Your task to perform on an android device: Open Wikipedia Image 0: 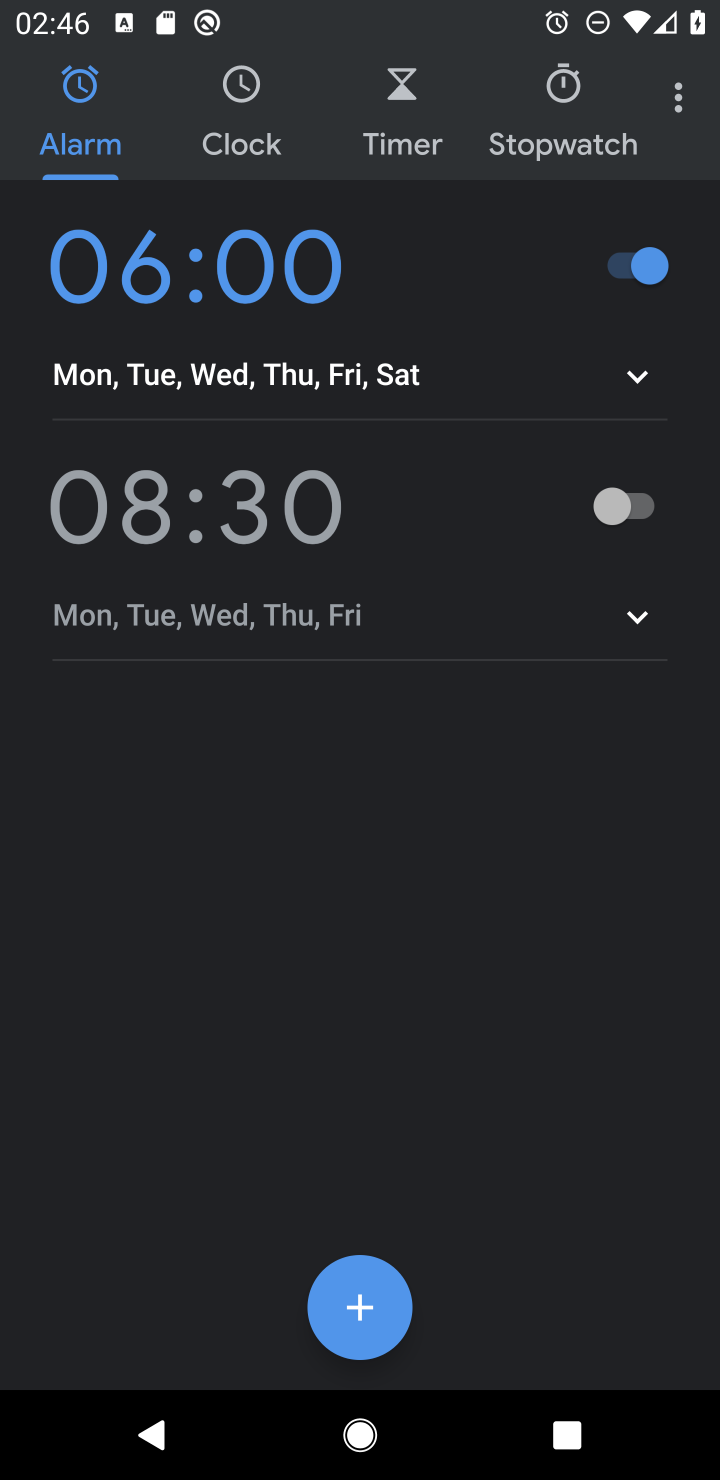
Step 0: press home button
Your task to perform on an android device: Open Wikipedia Image 1: 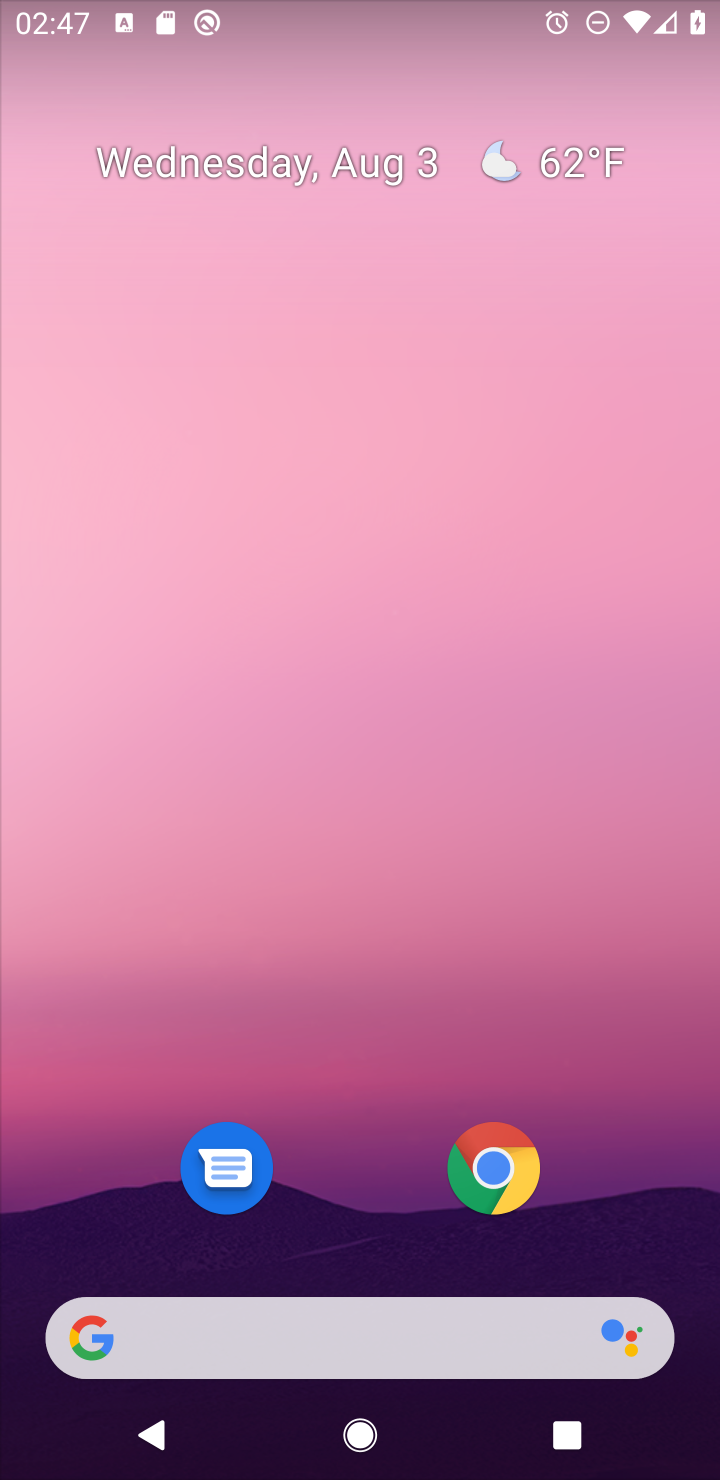
Step 1: click (491, 1168)
Your task to perform on an android device: Open Wikipedia Image 2: 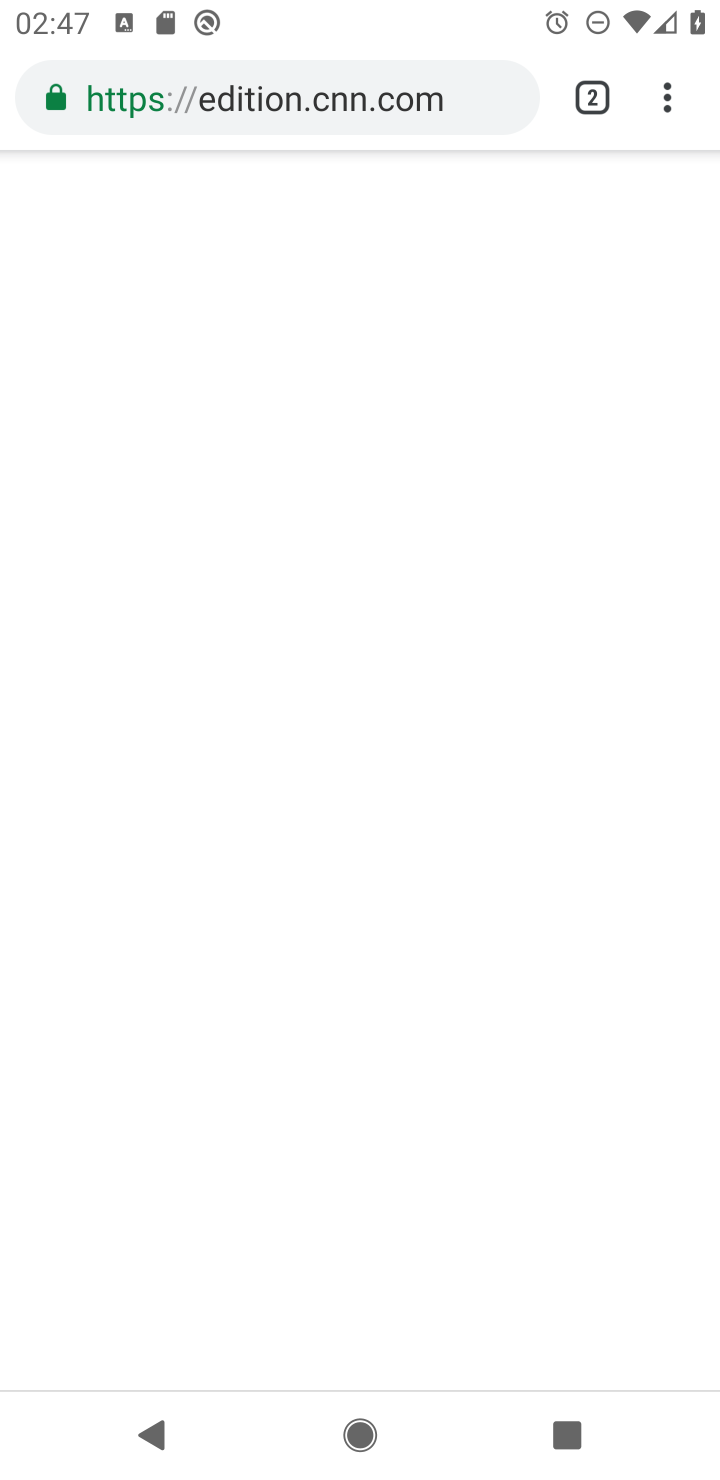
Step 2: click (475, 89)
Your task to perform on an android device: Open Wikipedia Image 3: 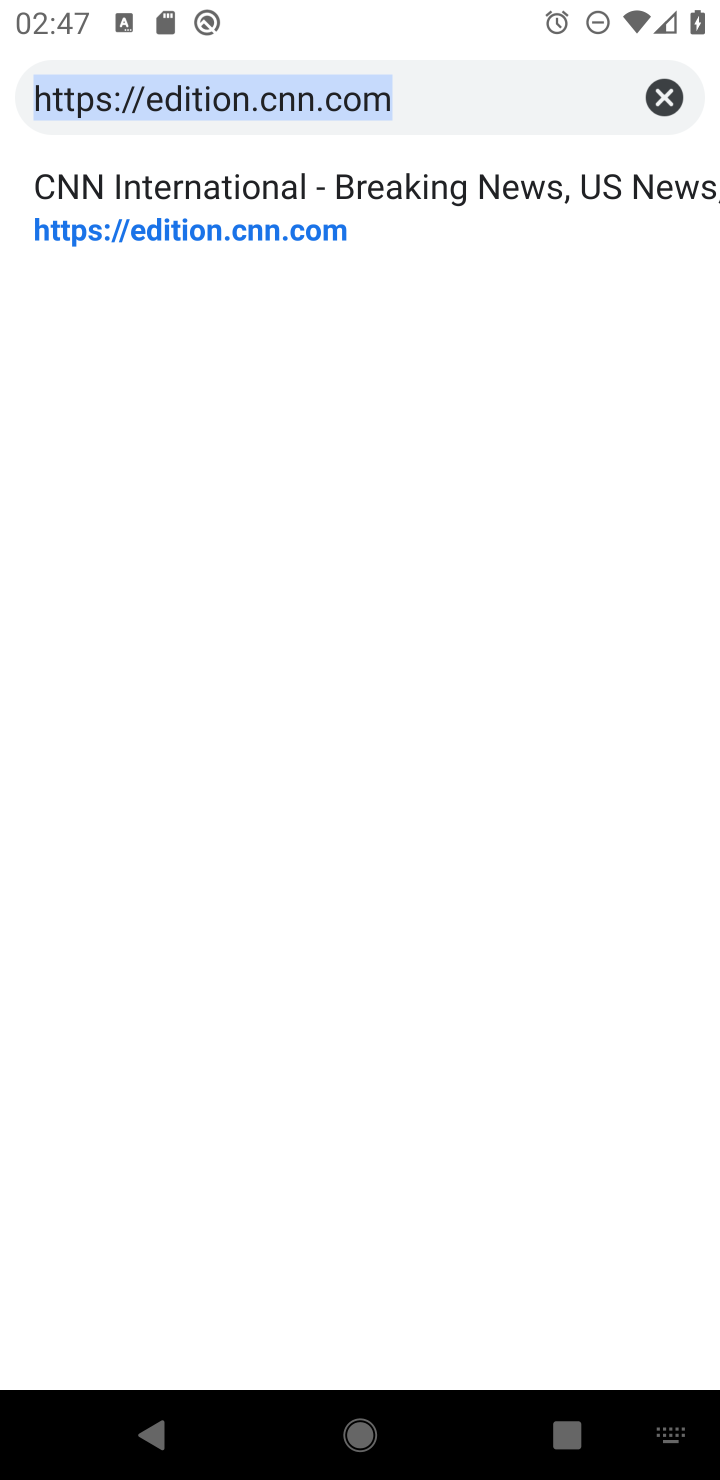
Step 3: click (656, 101)
Your task to perform on an android device: Open Wikipedia Image 4: 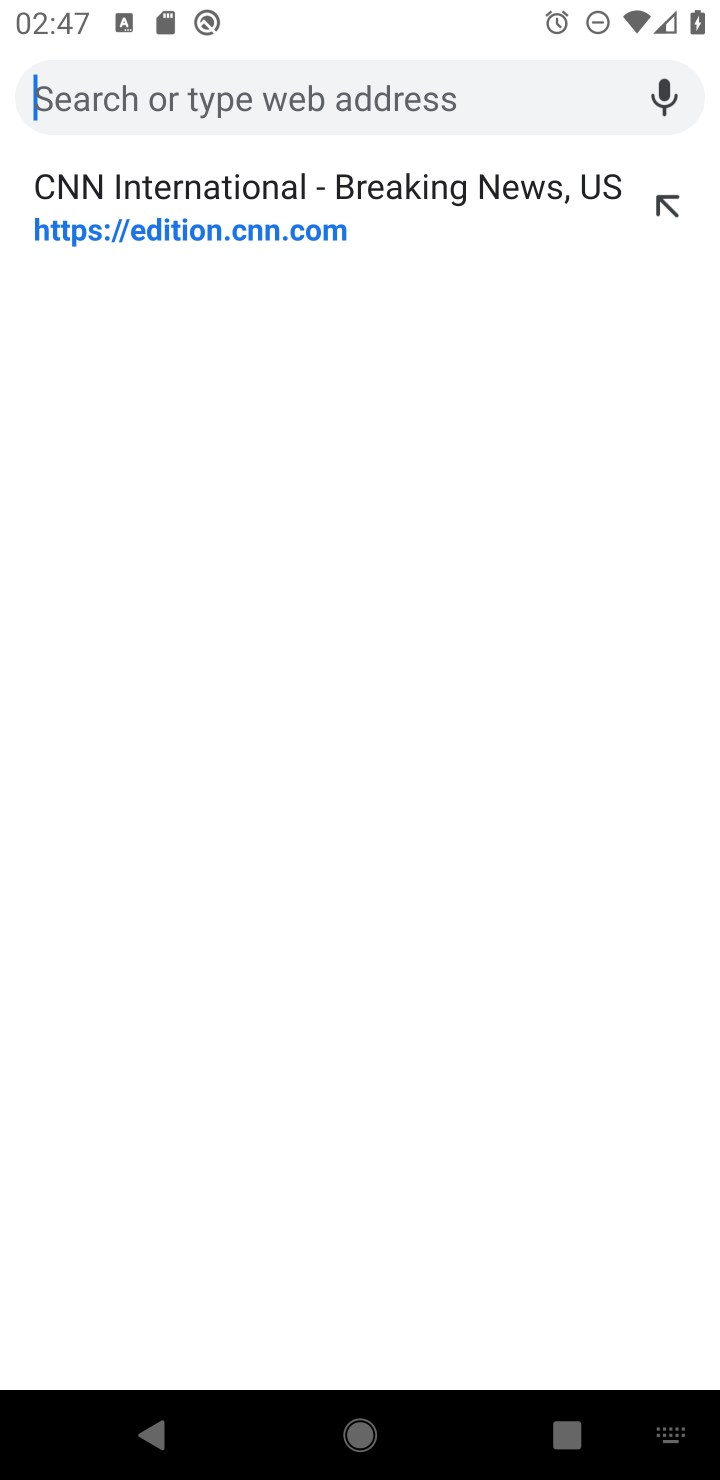
Step 4: type "wikipedia"
Your task to perform on an android device: Open Wikipedia Image 5: 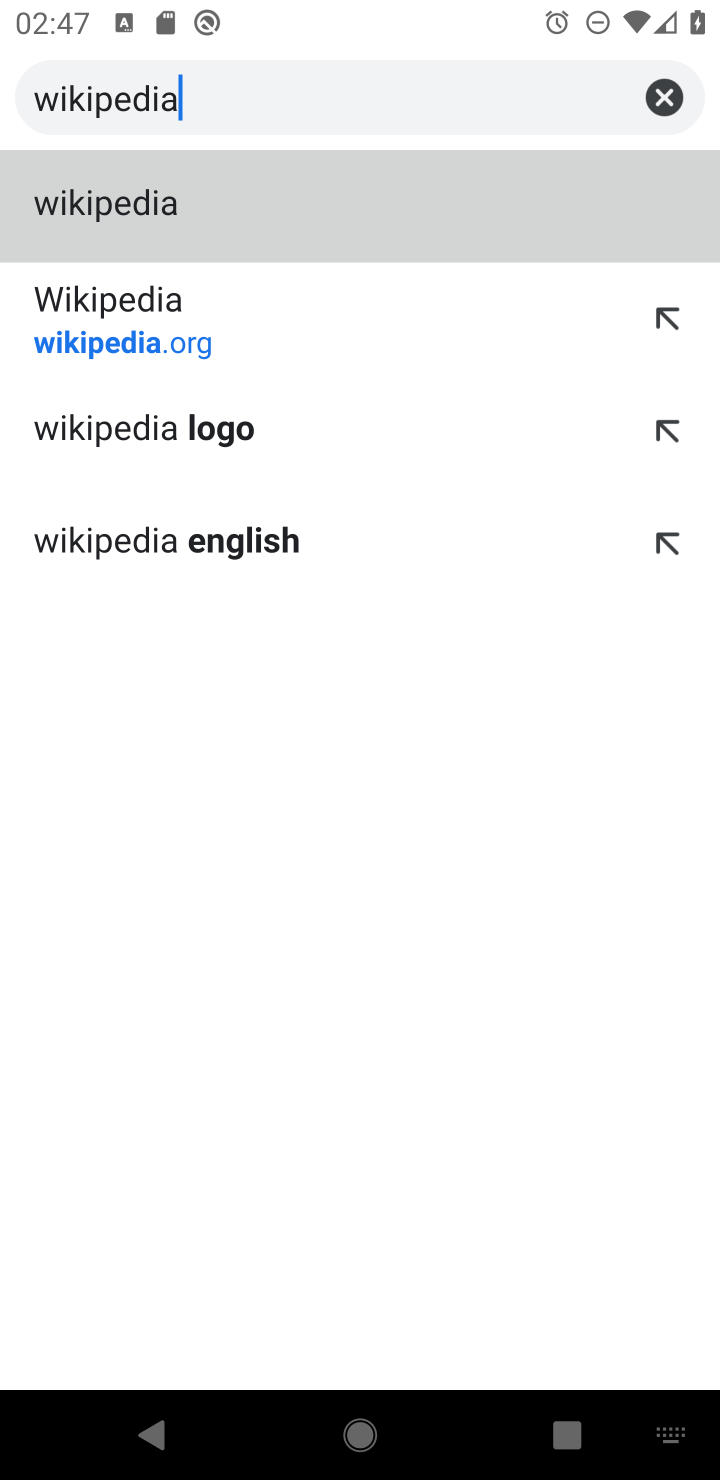
Step 5: click (150, 208)
Your task to perform on an android device: Open Wikipedia Image 6: 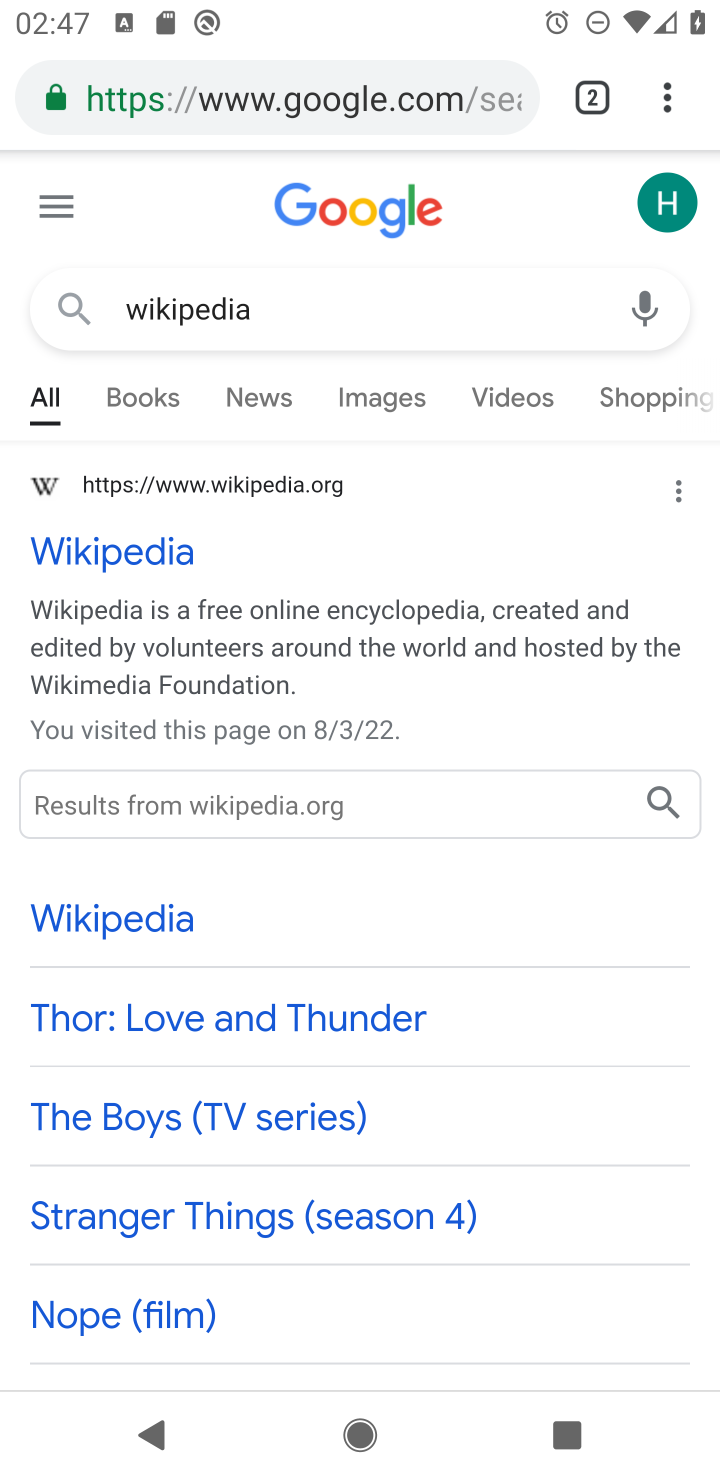
Step 6: click (121, 544)
Your task to perform on an android device: Open Wikipedia Image 7: 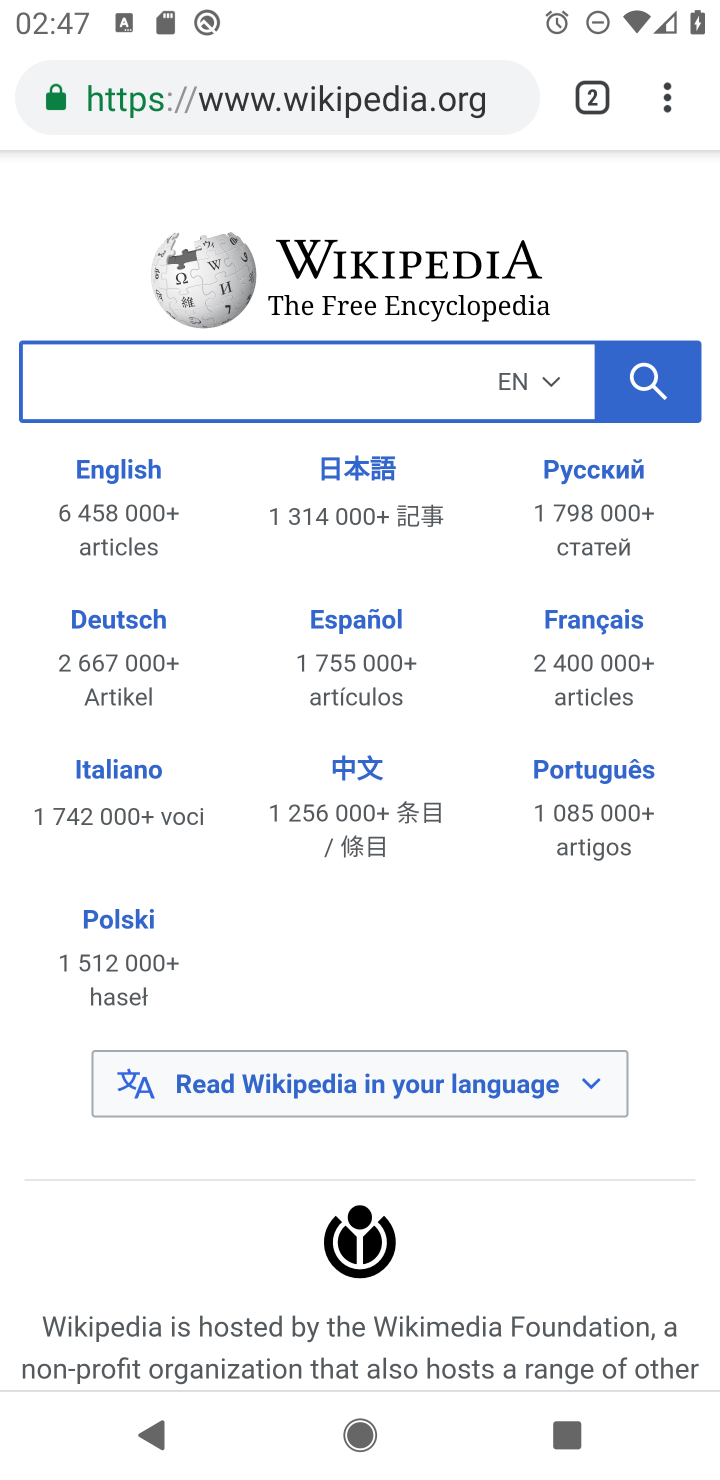
Step 7: task complete